Your task to perform on an android device: Search for a sofa on article.com Image 0: 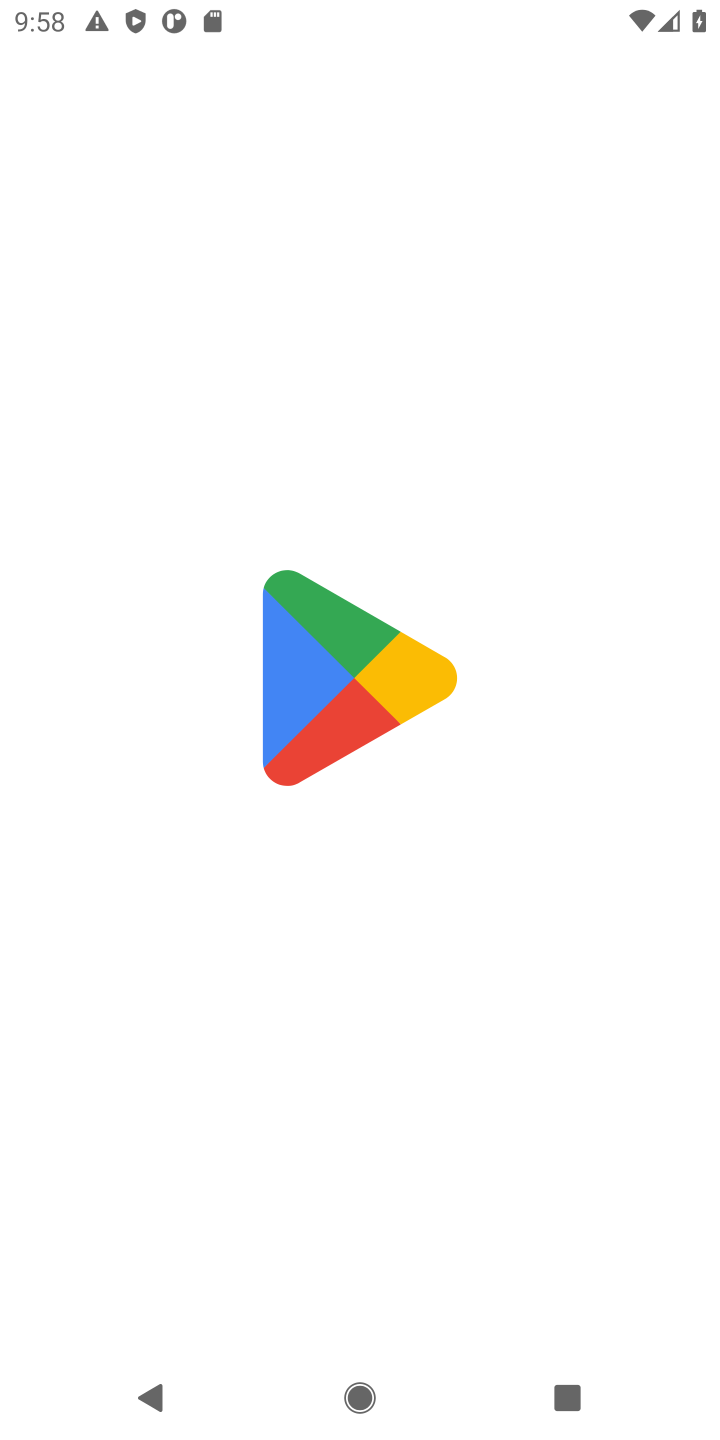
Step 0: press home button
Your task to perform on an android device: Search for a sofa on article.com Image 1: 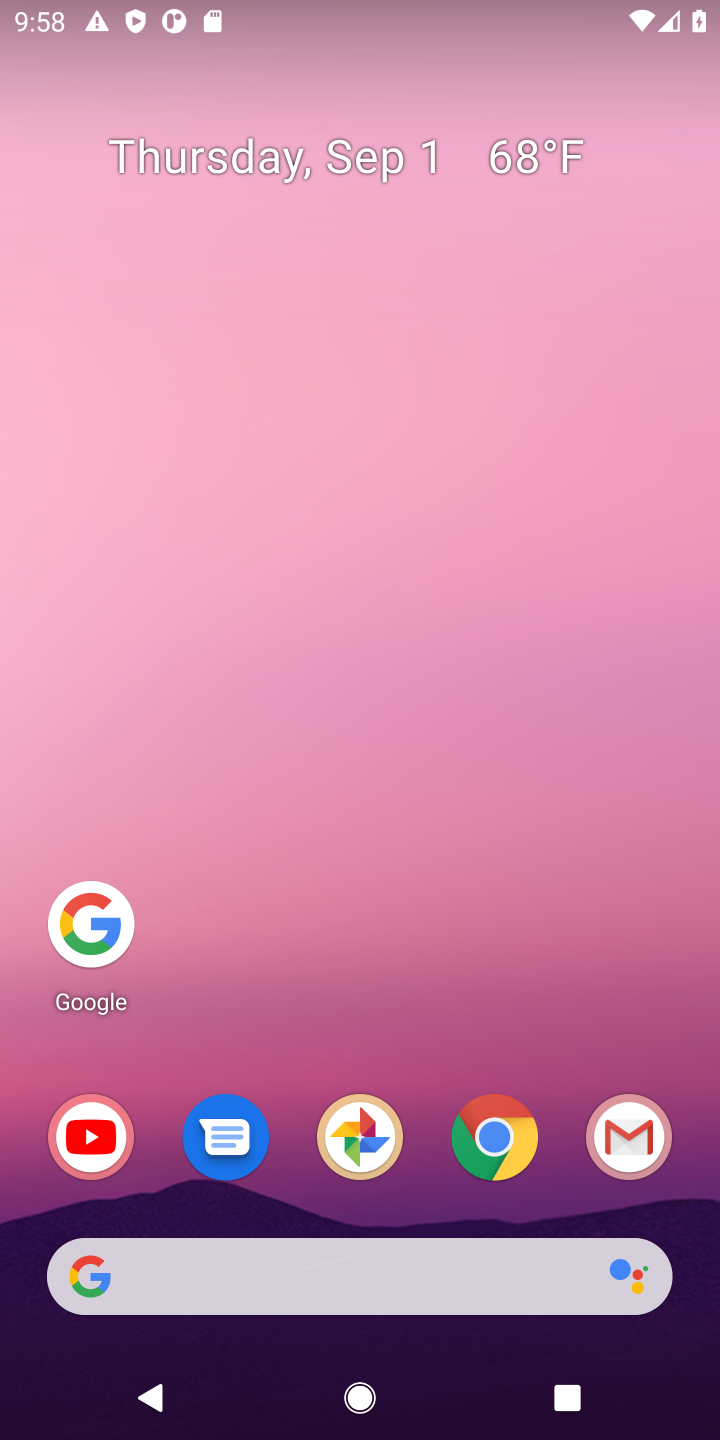
Step 1: click (274, 1276)
Your task to perform on an android device: Search for a sofa on article.com Image 2: 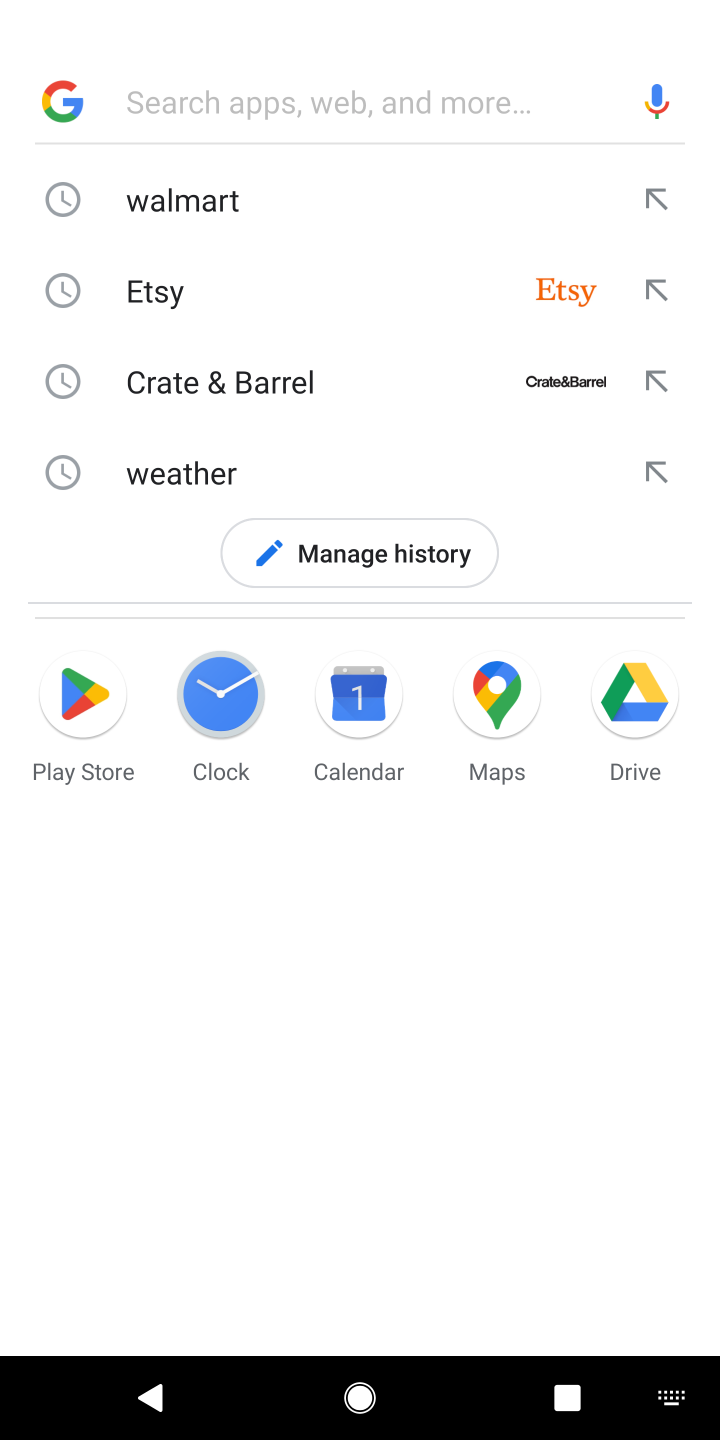
Step 2: type "artical.com"
Your task to perform on an android device: Search for a sofa on article.com Image 3: 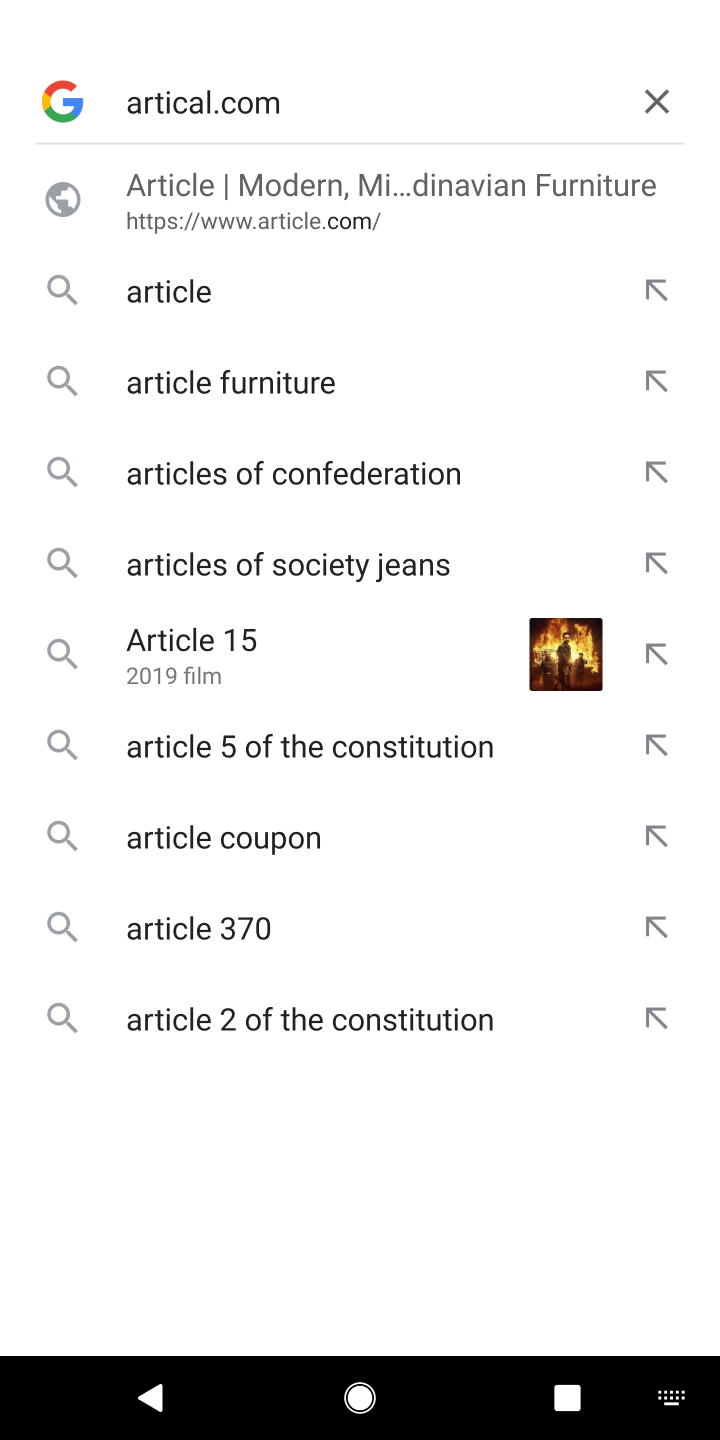
Step 3: click (210, 186)
Your task to perform on an android device: Search for a sofa on article.com Image 4: 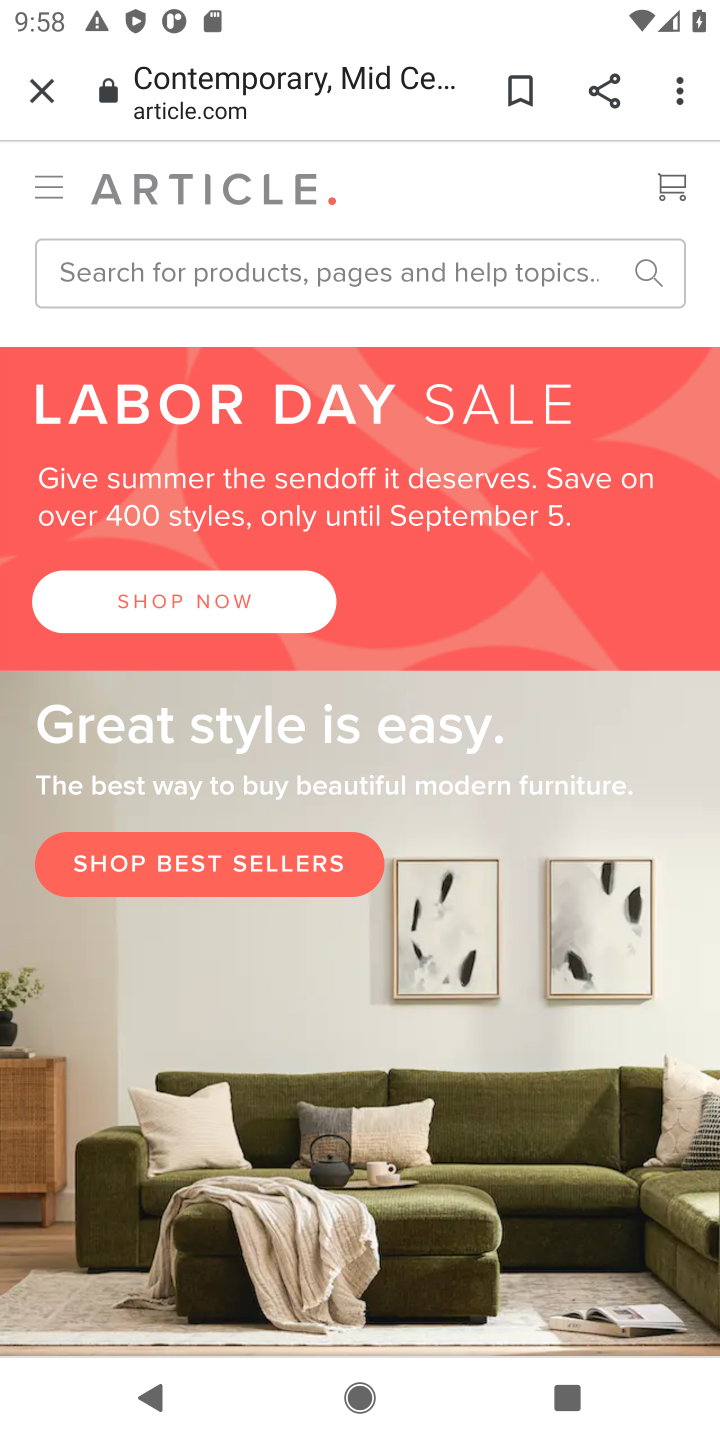
Step 4: click (301, 267)
Your task to perform on an android device: Search for a sofa on article.com Image 5: 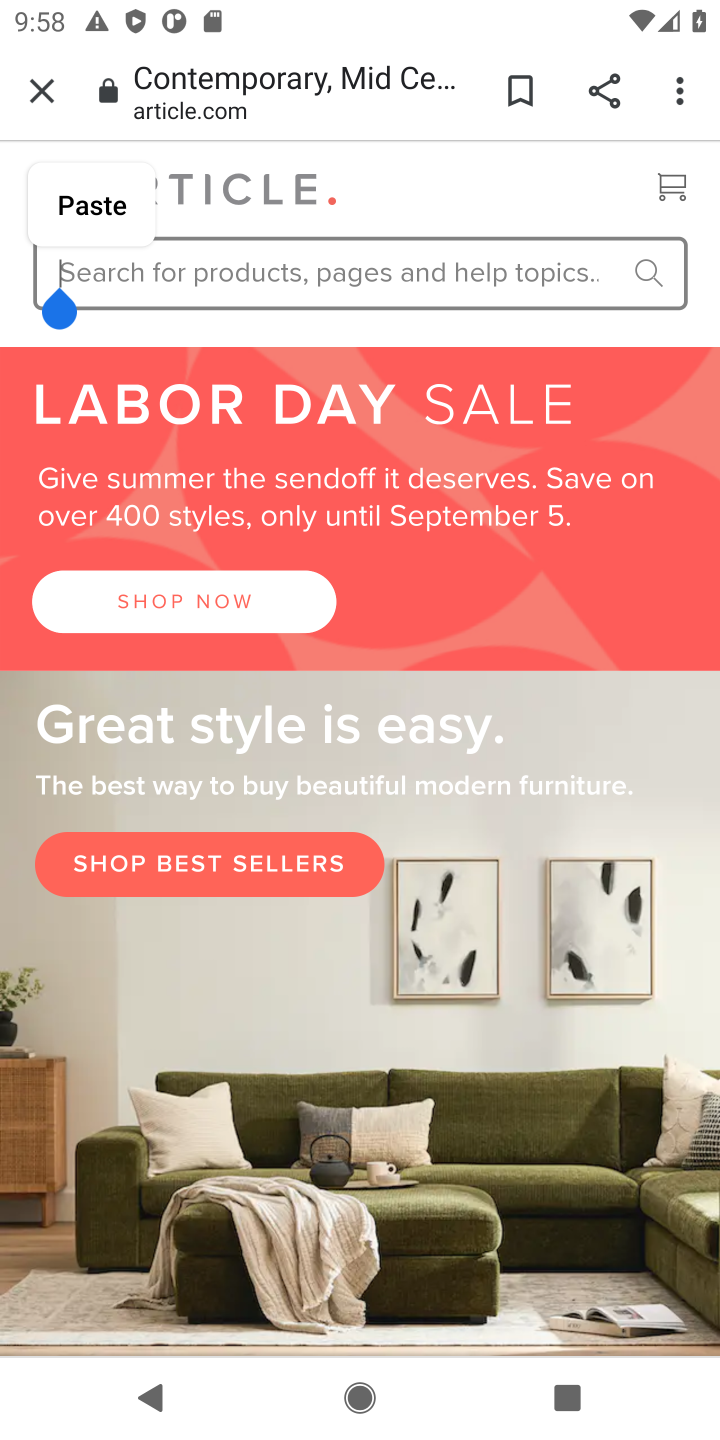
Step 5: type "sofa"
Your task to perform on an android device: Search for a sofa on article.com Image 6: 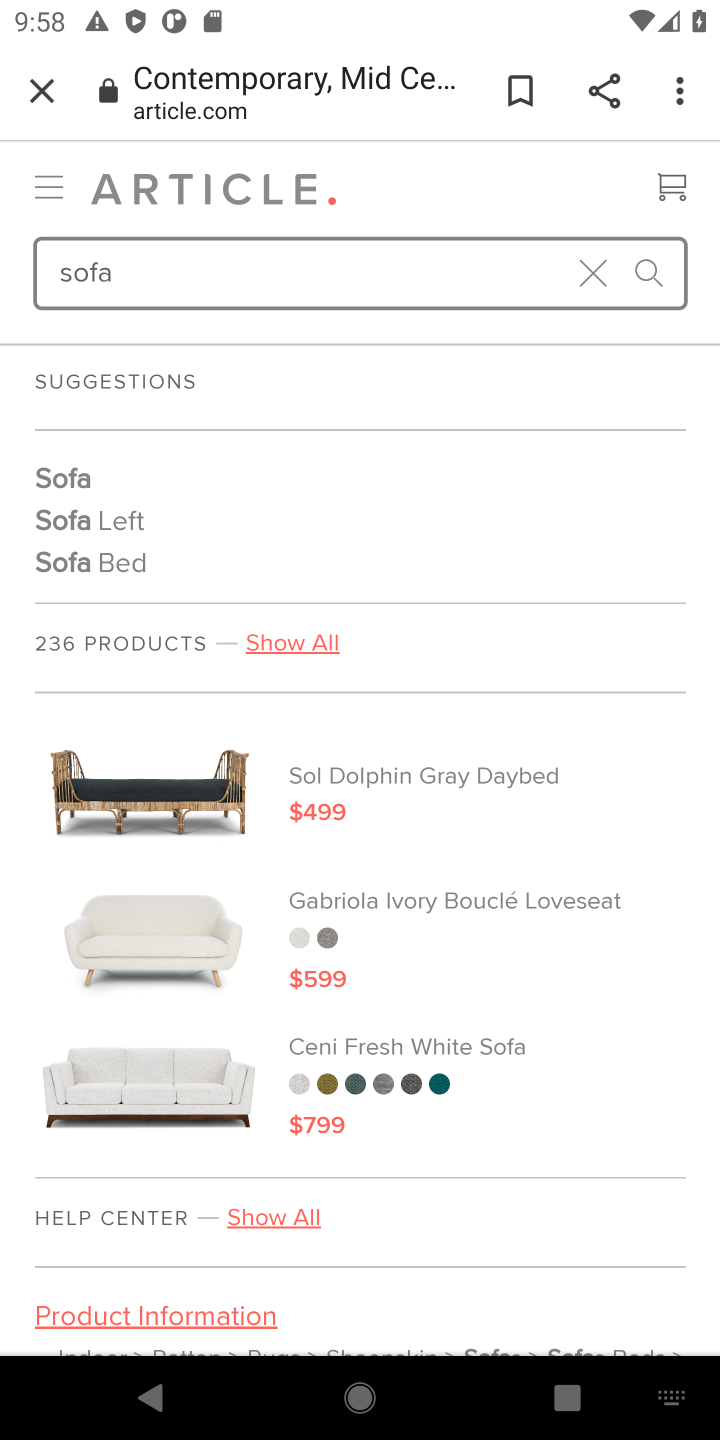
Step 6: click (653, 262)
Your task to perform on an android device: Search for a sofa on article.com Image 7: 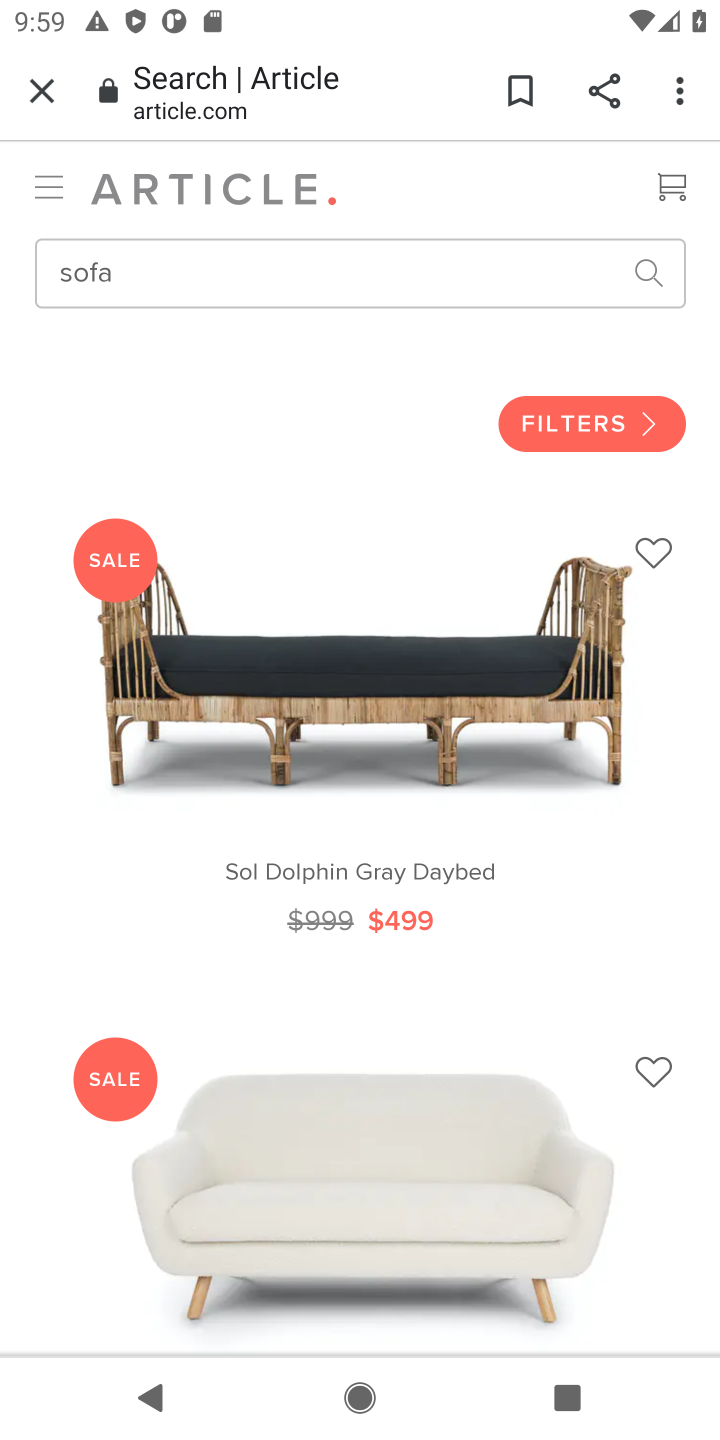
Step 7: task complete